Your task to perform on an android device: Search for sushi restaurants on Maps Image 0: 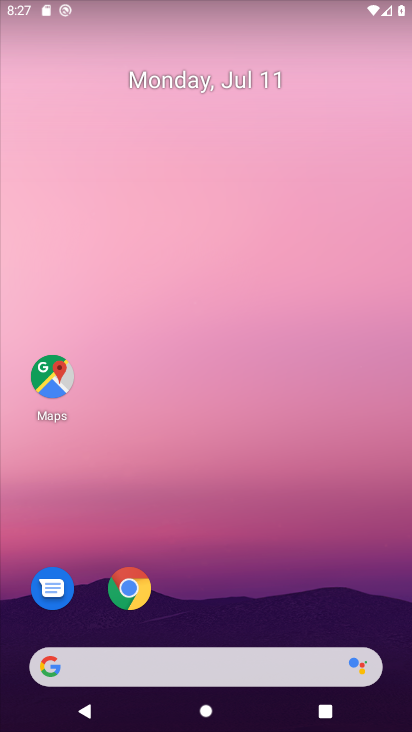
Step 0: click (39, 369)
Your task to perform on an android device: Search for sushi restaurants on Maps Image 1: 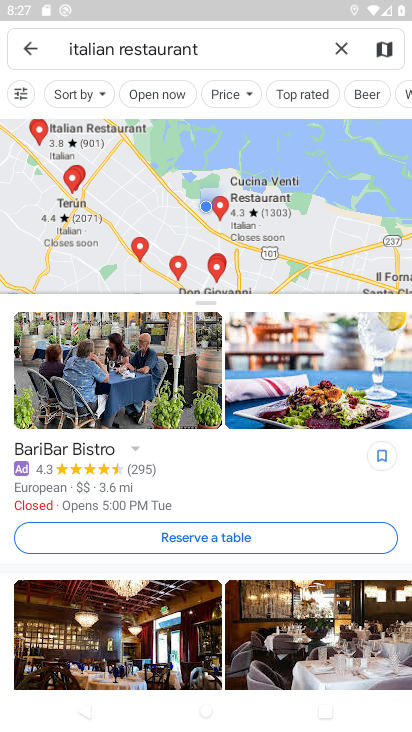
Step 1: click (338, 49)
Your task to perform on an android device: Search for sushi restaurants on Maps Image 2: 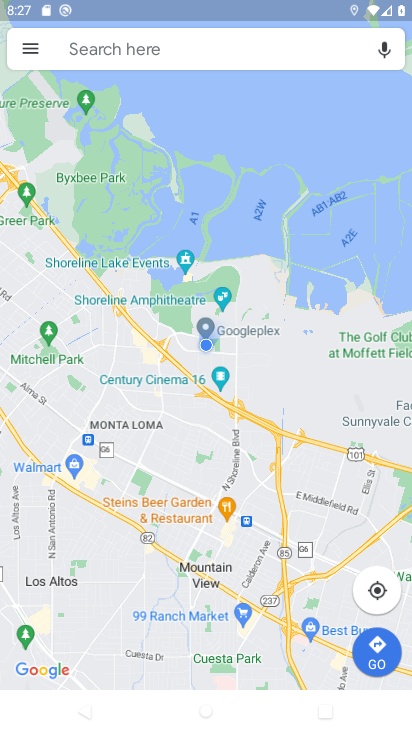
Step 2: click (220, 39)
Your task to perform on an android device: Search for sushi restaurants on Maps Image 3: 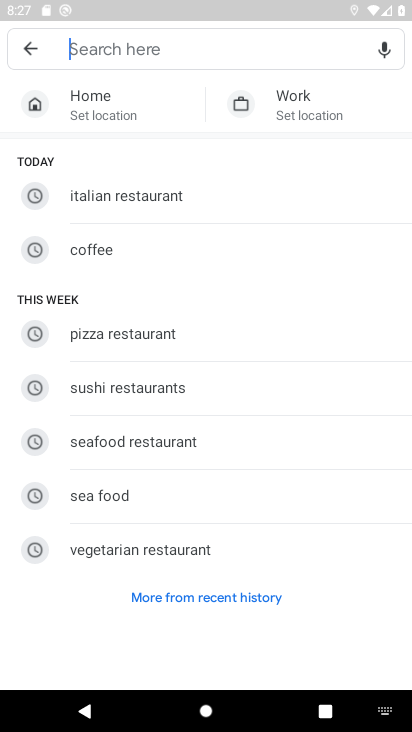
Step 3: type "sushi restaurants"
Your task to perform on an android device: Search for sushi restaurants on Maps Image 4: 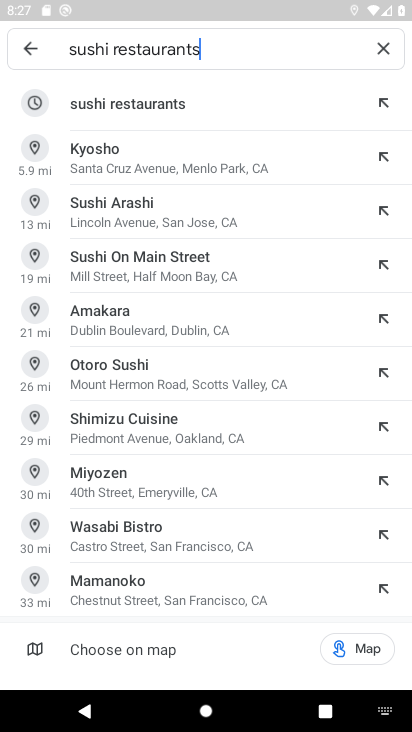
Step 4: click (268, 88)
Your task to perform on an android device: Search for sushi restaurants on Maps Image 5: 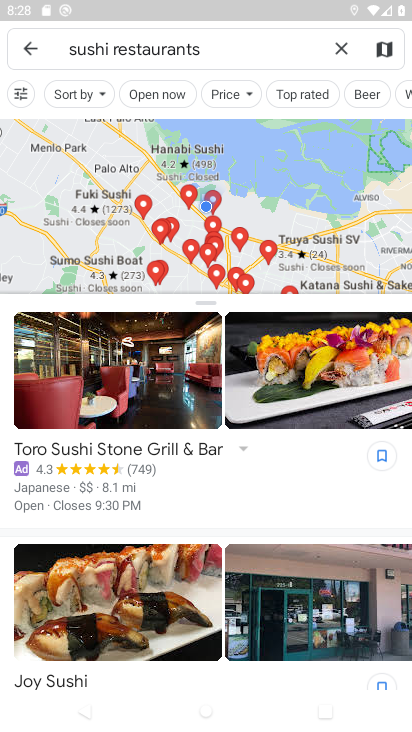
Step 5: task complete